Your task to perform on an android device: Go to Wikipedia Image 0: 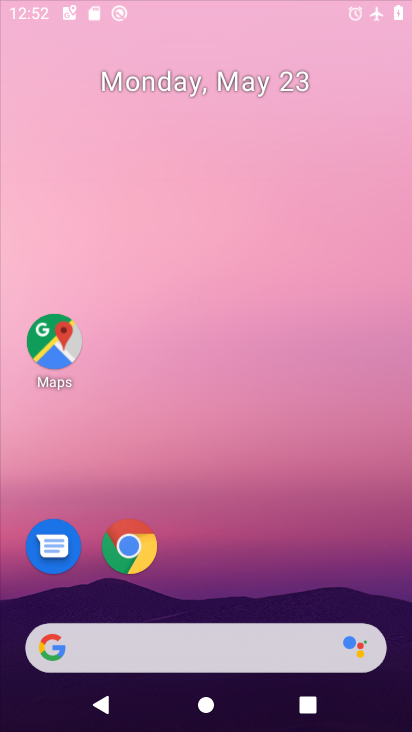
Step 0: click (215, 88)
Your task to perform on an android device: Go to Wikipedia Image 1: 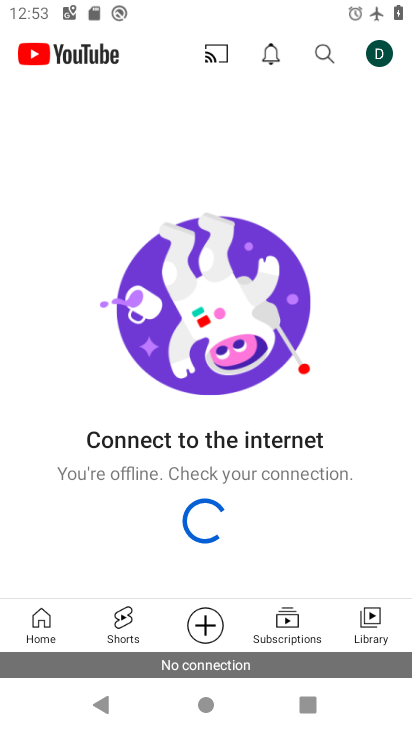
Step 1: drag from (242, 619) to (274, 353)
Your task to perform on an android device: Go to Wikipedia Image 2: 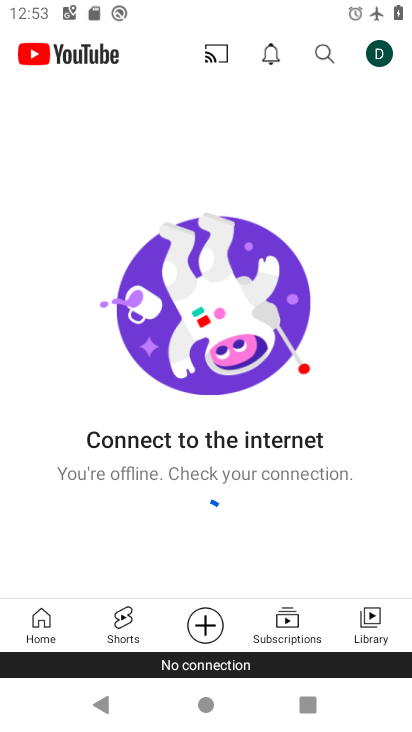
Step 2: press home button
Your task to perform on an android device: Go to Wikipedia Image 3: 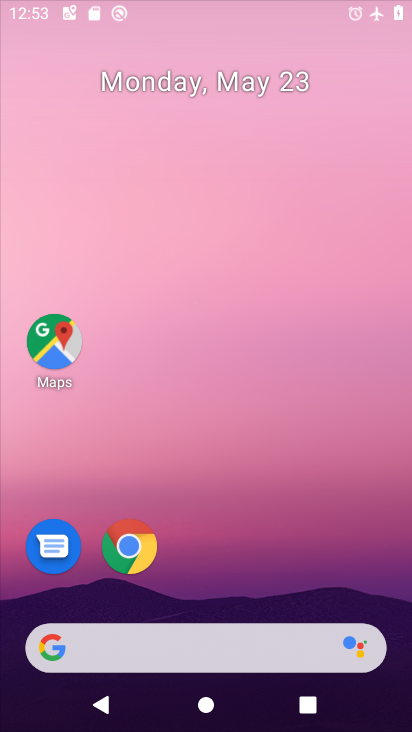
Step 3: drag from (229, 490) to (229, 94)
Your task to perform on an android device: Go to Wikipedia Image 4: 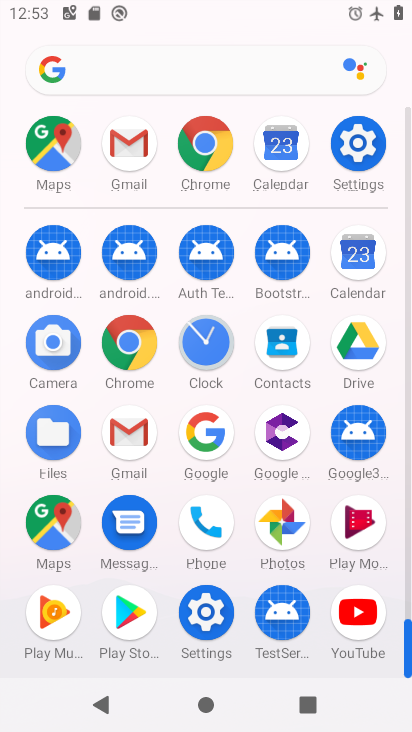
Step 4: click (120, 337)
Your task to perform on an android device: Go to Wikipedia Image 5: 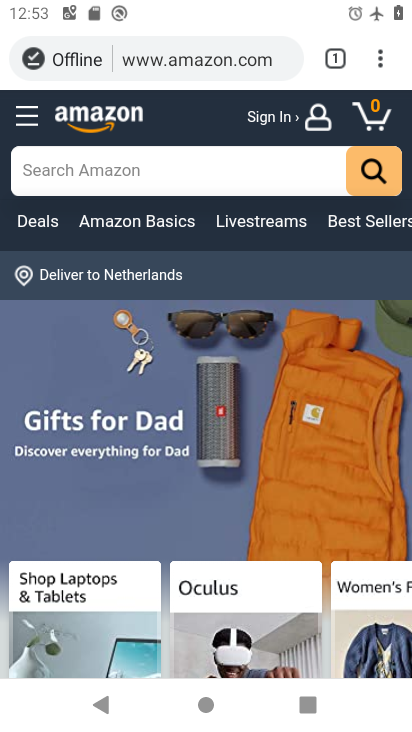
Step 5: click (236, 66)
Your task to perform on an android device: Go to Wikipedia Image 6: 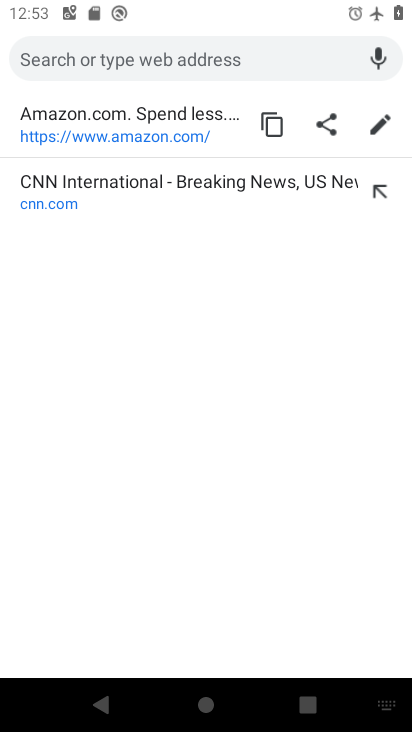
Step 6: task complete